Your task to perform on an android device: Check the weather Image 0: 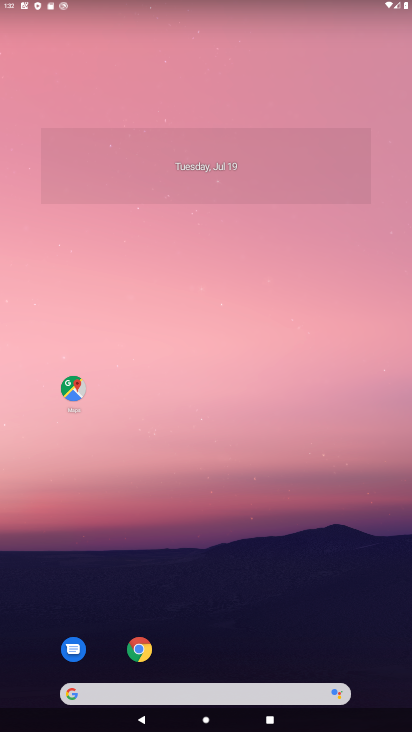
Step 0: click (214, 694)
Your task to perform on an android device: Check the weather Image 1: 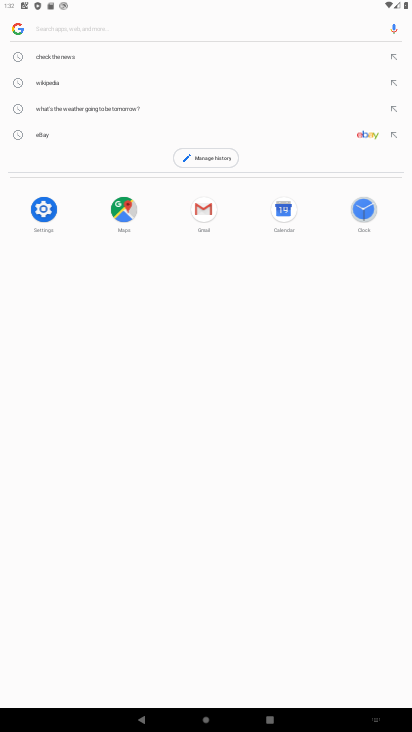
Step 1: type "Check the weather"
Your task to perform on an android device: Check the weather Image 2: 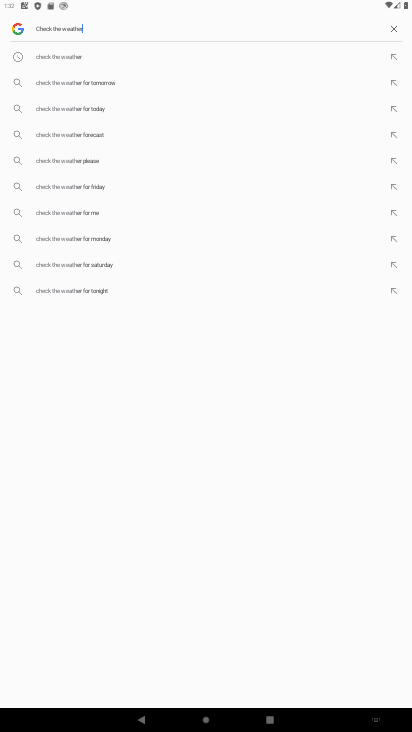
Step 2: press enter
Your task to perform on an android device: Check the weather Image 3: 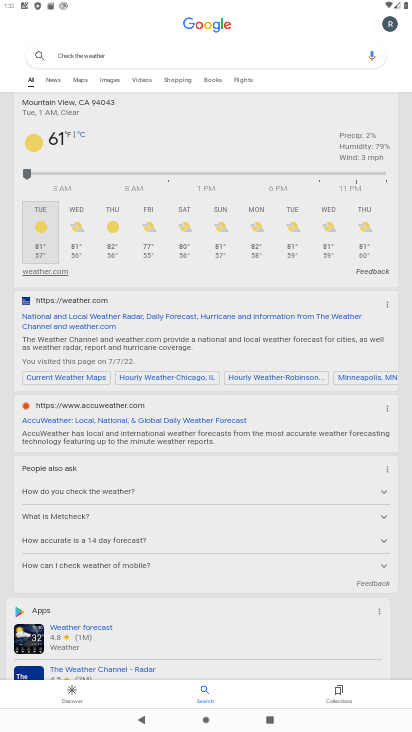
Step 3: task complete